Your task to perform on an android device: Open battery settings Image 0: 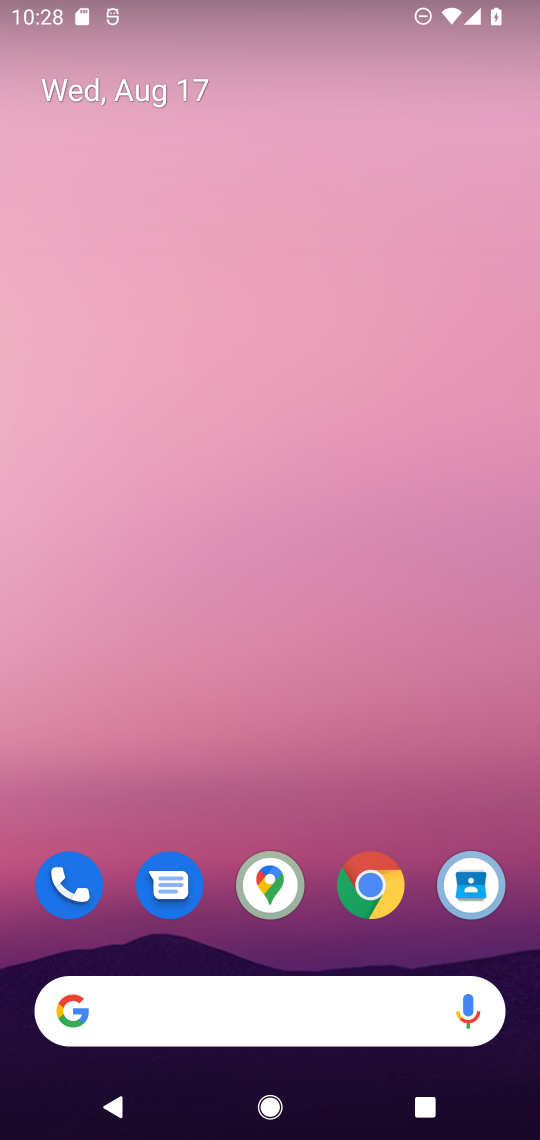
Step 0: drag from (423, 946) to (368, 178)
Your task to perform on an android device: Open battery settings Image 1: 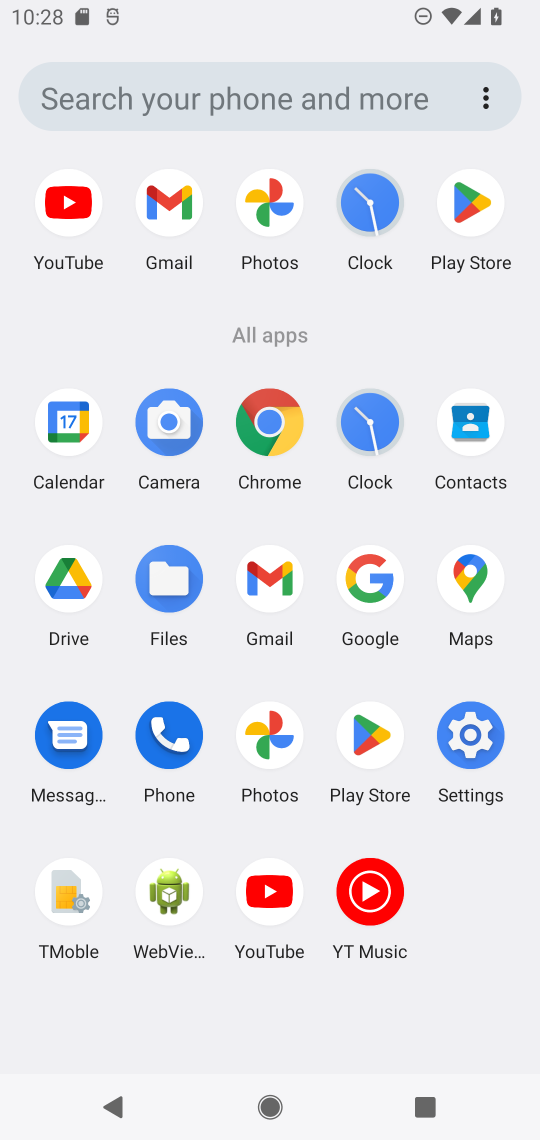
Step 1: click (467, 737)
Your task to perform on an android device: Open battery settings Image 2: 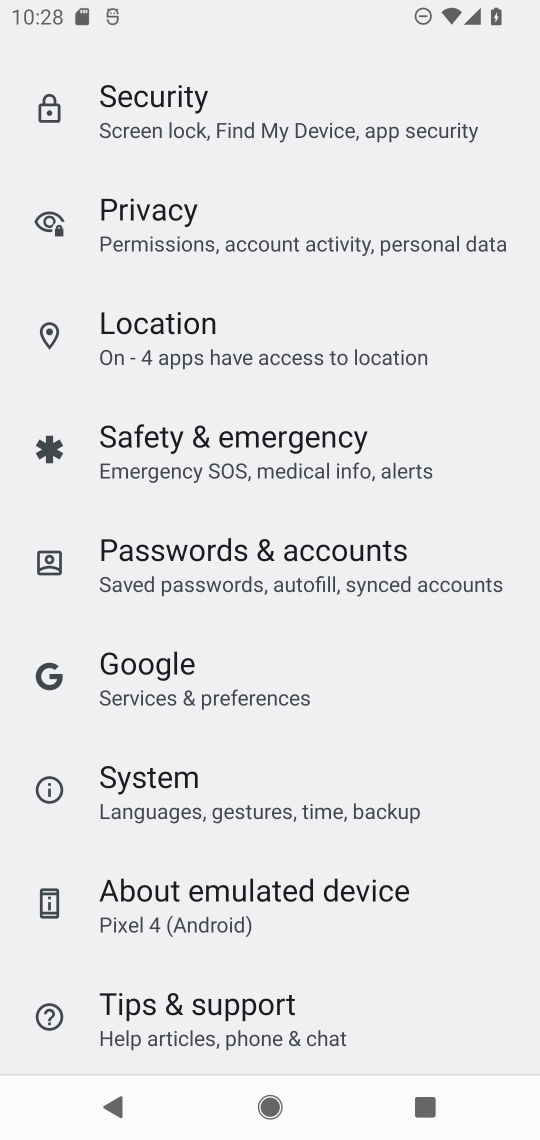
Step 2: drag from (477, 194) to (464, 756)
Your task to perform on an android device: Open battery settings Image 3: 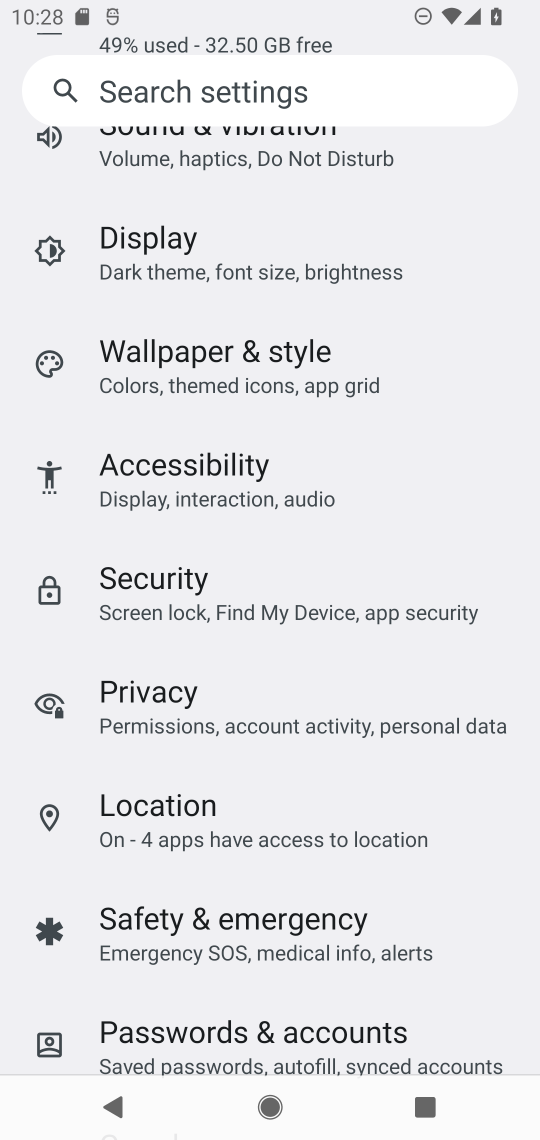
Step 3: drag from (476, 235) to (485, 803)
Your task to perform on an android device: Open battery settings Image 4: 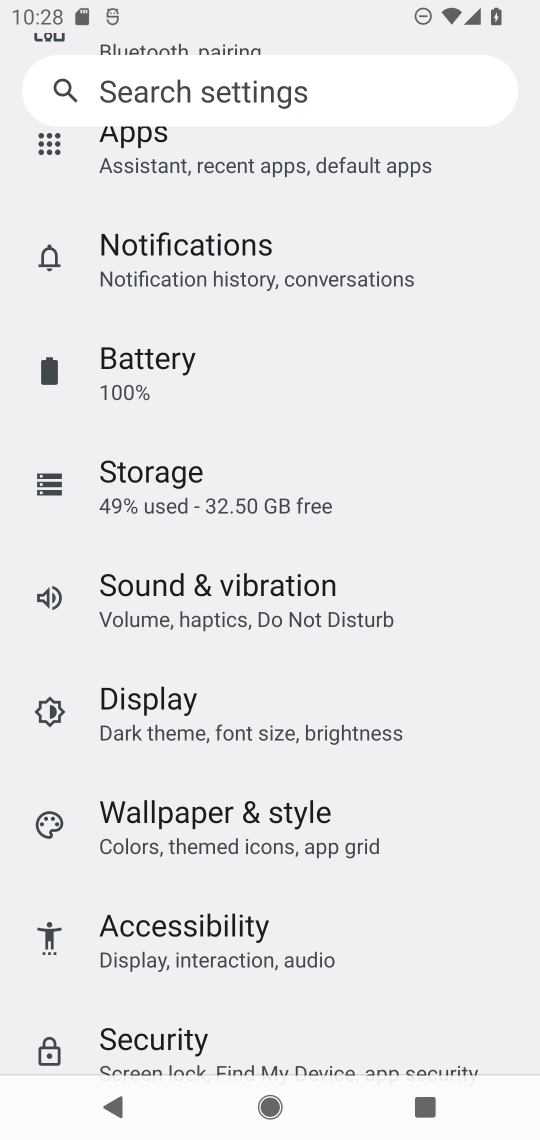
Step 4: click (136, 358)
Your task to perform on an android device: Open battery settings Image 5: 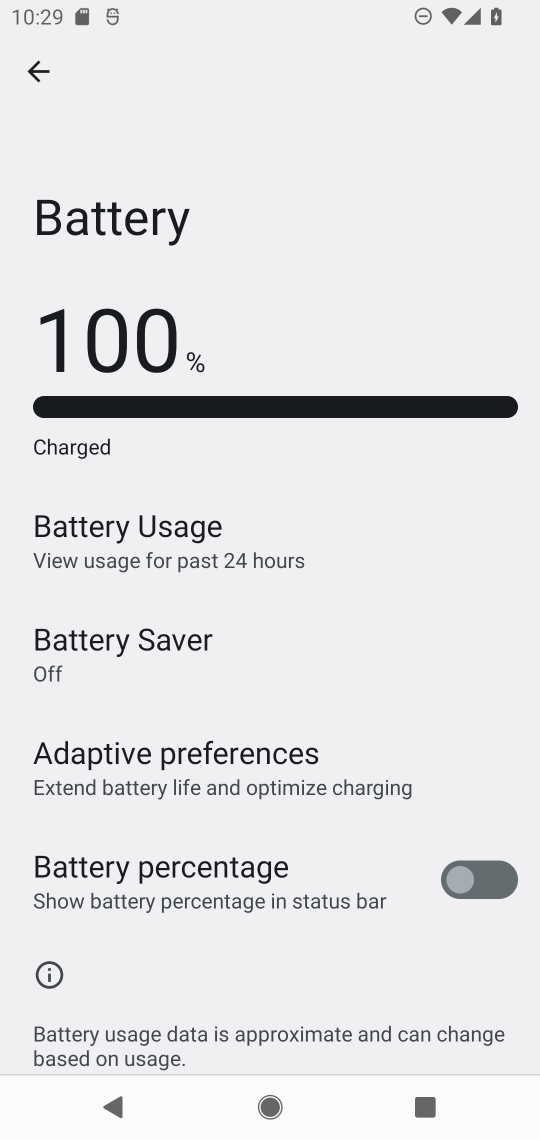
Step 5: task complete